Your task to perform on an android device: change keyboard looks Image 0: 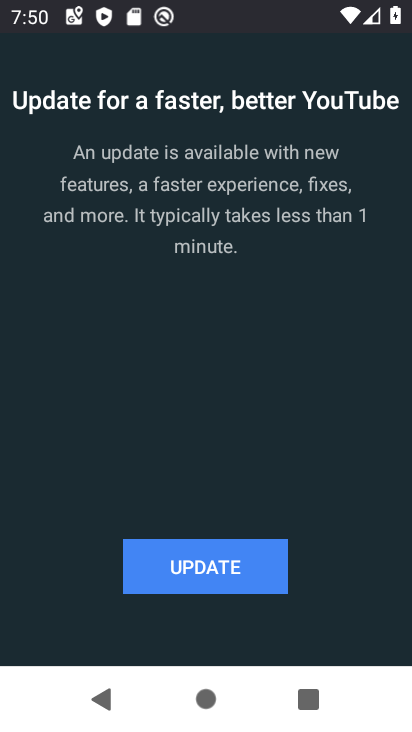
Step 0: press home button
Your task to perform on an android device: change keyboard looks Image 1: 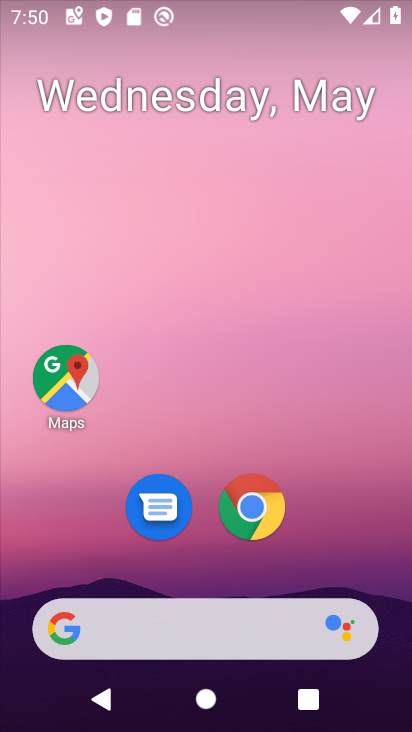
Step 1: drag from (324, 588) to (295, 277)
Your task to perform on an android device: change keyboard looks Image 2: 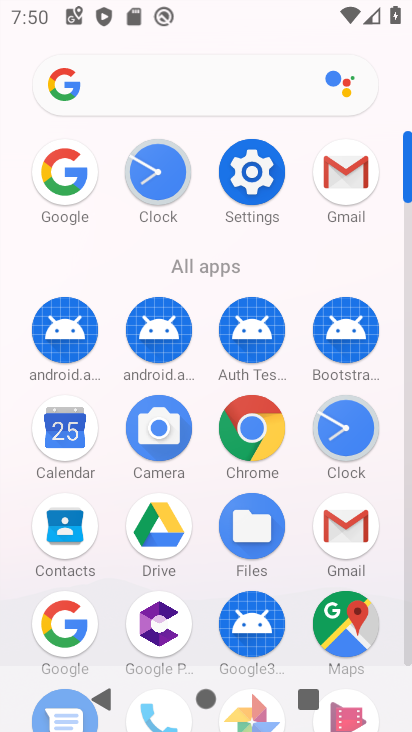
Step 2: click (256, 168)
Your task to perform on an android device: change keyboard looks Image 3: 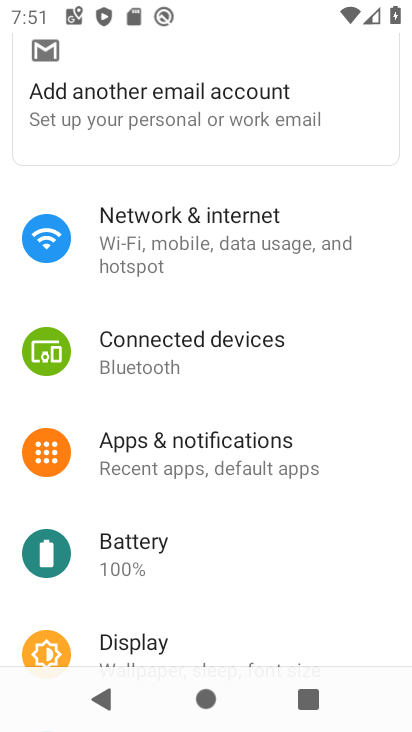
Step 3: drag from (249, 567) to (266, 226)
Your task to perform on an android device: change keyboard looks Image 4: 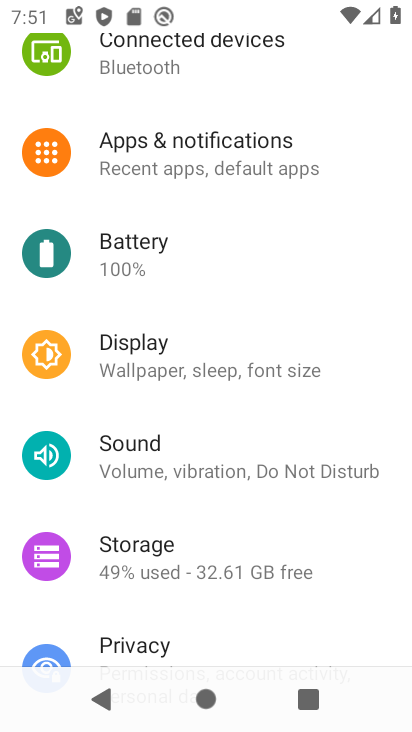
Step 4: drag from (258, 580) to (266, 229)
Your task to perform on an android device: change keyboard looks Image 5: 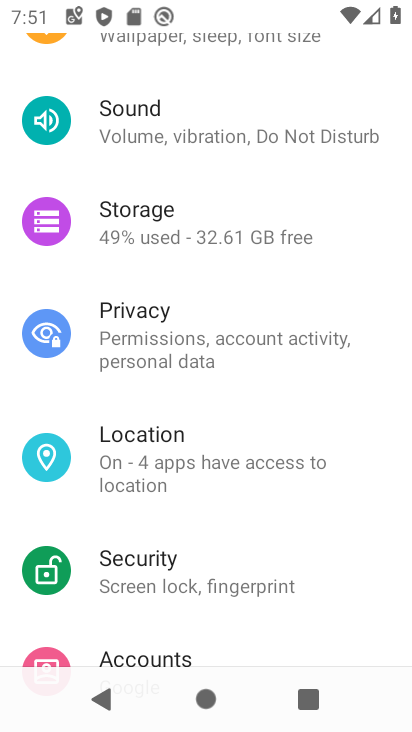
Step 5: drag from (234, 575) to (222, 212)
Your task to perform on an android device: change keyboard looks Image 6: 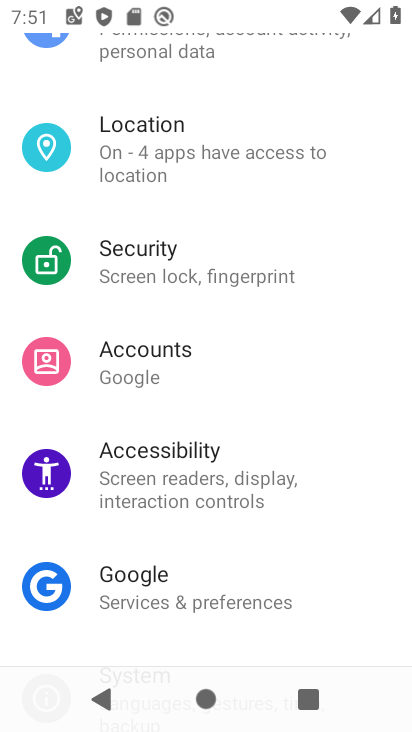
Step 6: drag from (234, 563) to (246, 206)
Your task to perform on an android device: change keyboard looks Image 7: 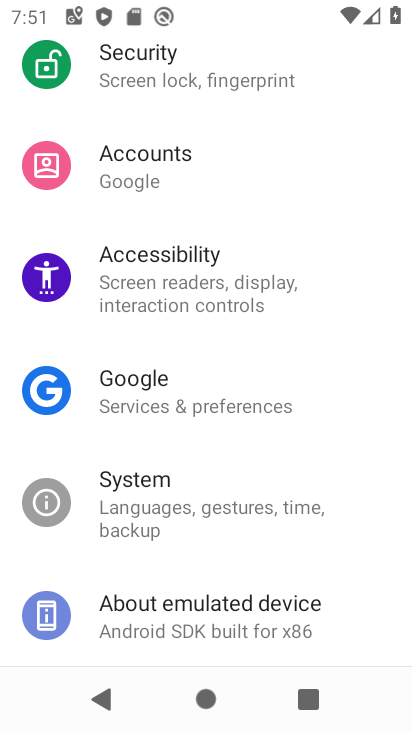
Step 7: click (203, 510)
Your task to perform on an android device: change keyboard looks Image 8: 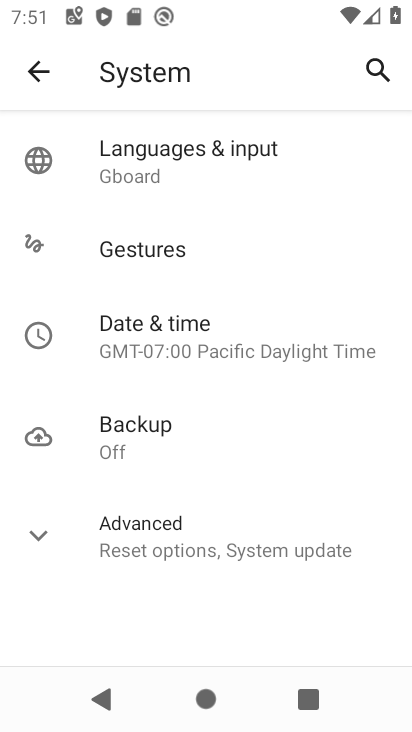
Step 8: click (142, 154)
Your task to perform on an android device: change keyboard looks Image 9: 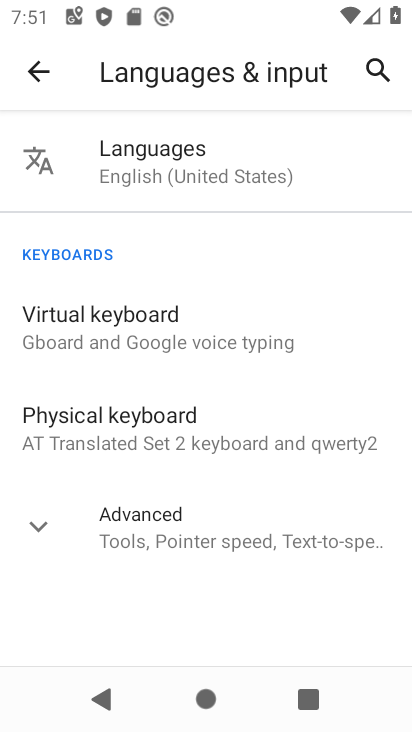
Step 9: click (115, 328)
Your task to perform on an android device: change keyboard looks Image 10: 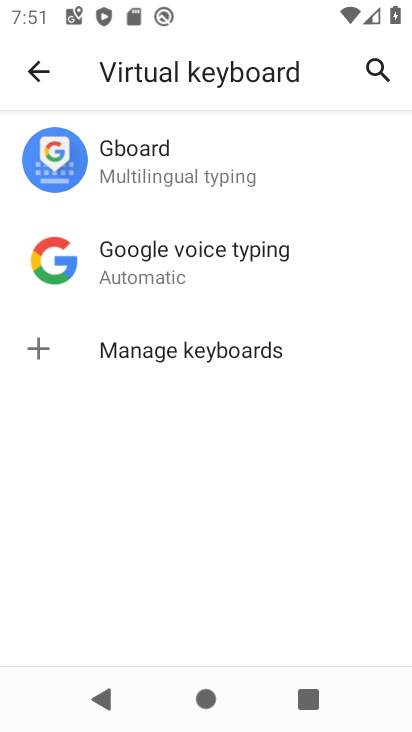
Step 10: click (139, 159)
Your task to perform on an android device: change keyboard looks Image 11: 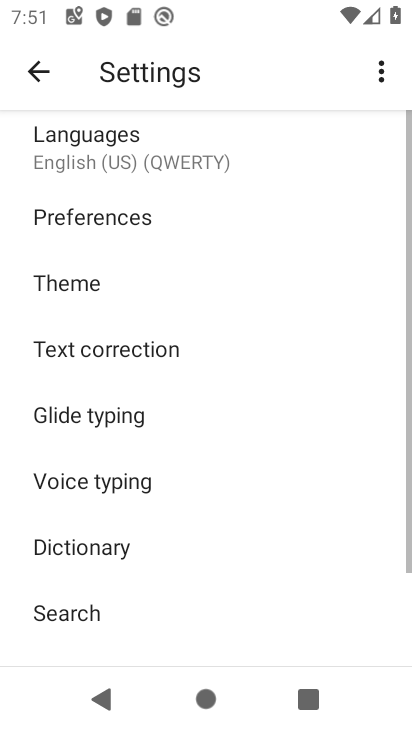
Step 11: click (73, 278)
Your task to perform on an android device: change keyboard looks Image 12: 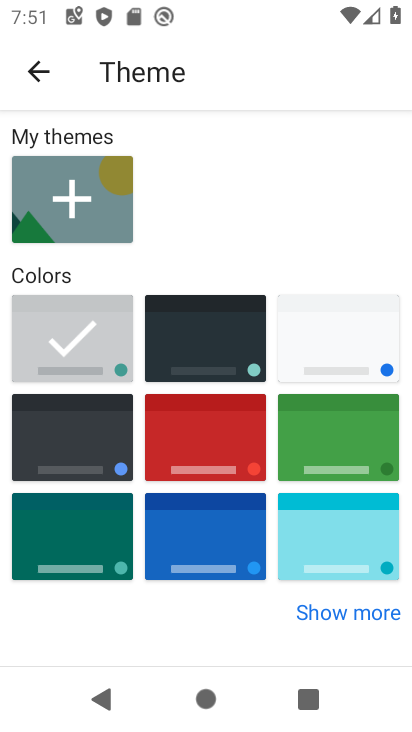
Step 12: click (197, 430)
Your task to perform on an android device: change keyboard looks Image 13: 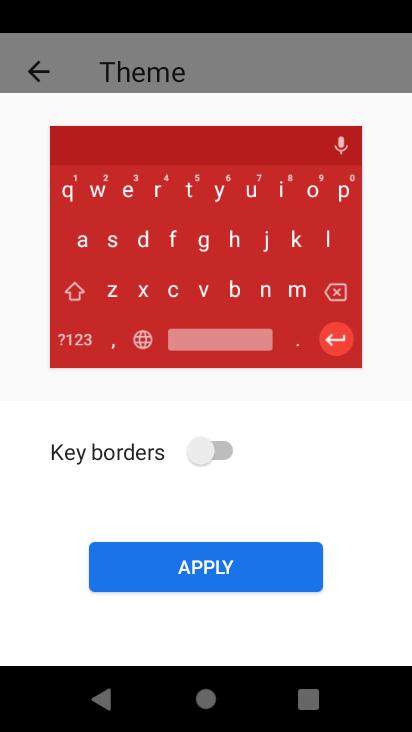
Step 13: click (216, 458)
Your task to perform on an android device: change keyboard looks Image 14: 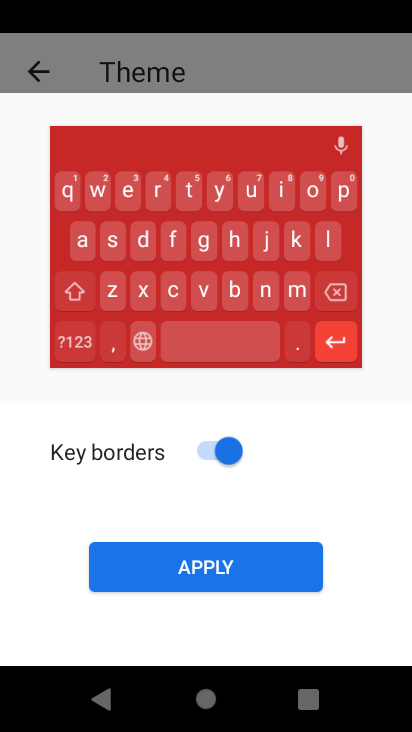
Step 14: click (214, 561)
Your task to perform on an android device: change keyboard looks Image 15: 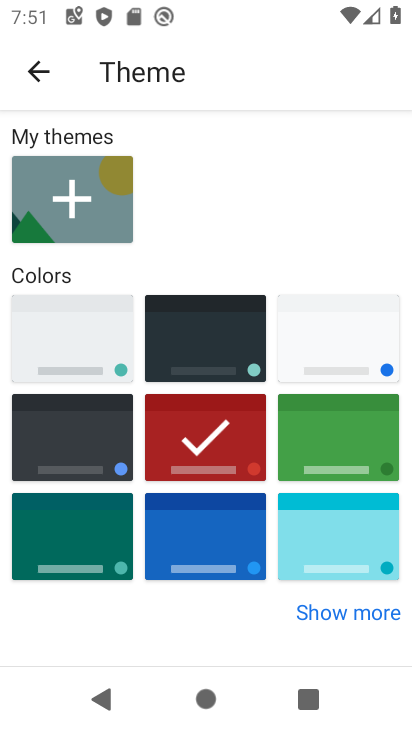
Step 15: task complete